Your task to perform on an android device: turn on translation in the chrome app Image 0: 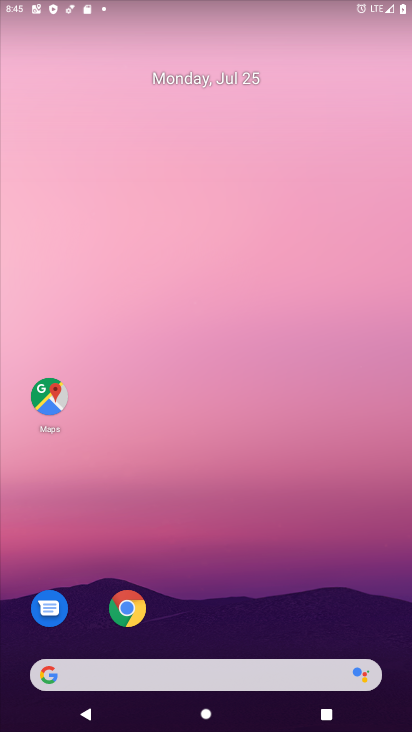
Step 0: click (121, 611)
Your task to perform on an android device: turn on translation in the chrome app Image 1: 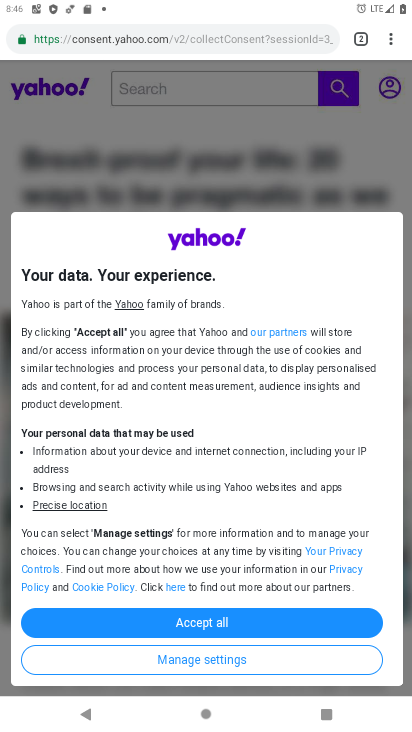
Step 1: click (388, 42)
Your task to perform on an android device: turn on translation in the chrome app Image 2: 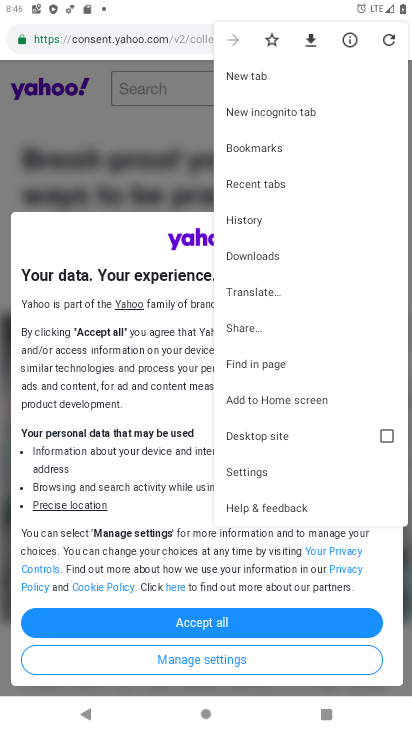
Step 2: click (249, 470)
Your task to perform on an android device: turn on translation in the chrome app Image 3: 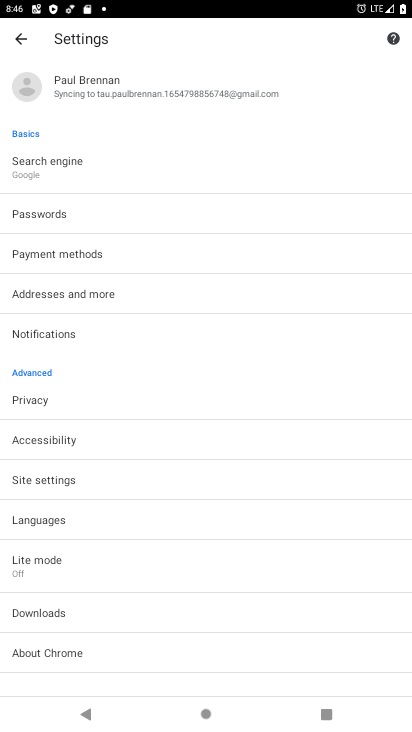
Step 3: click (41, 516)
Your task to perform on an android device: turn on translation in the chrome app Image 4: 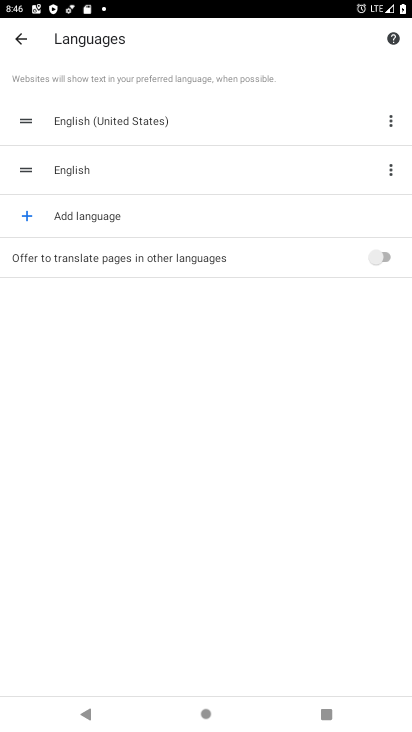
Step 4: click (390, 252)
Your task to perform on an android device: turn on translation in the chrome app Image 5: 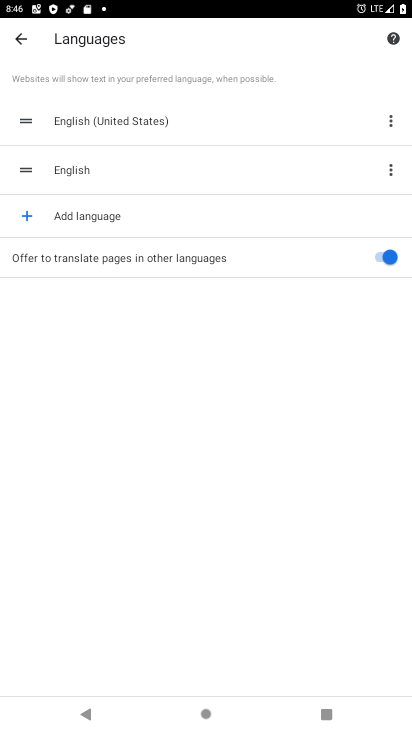
Step 5: task complete